Your task to perform on an android device: Go to location settings Image 0: 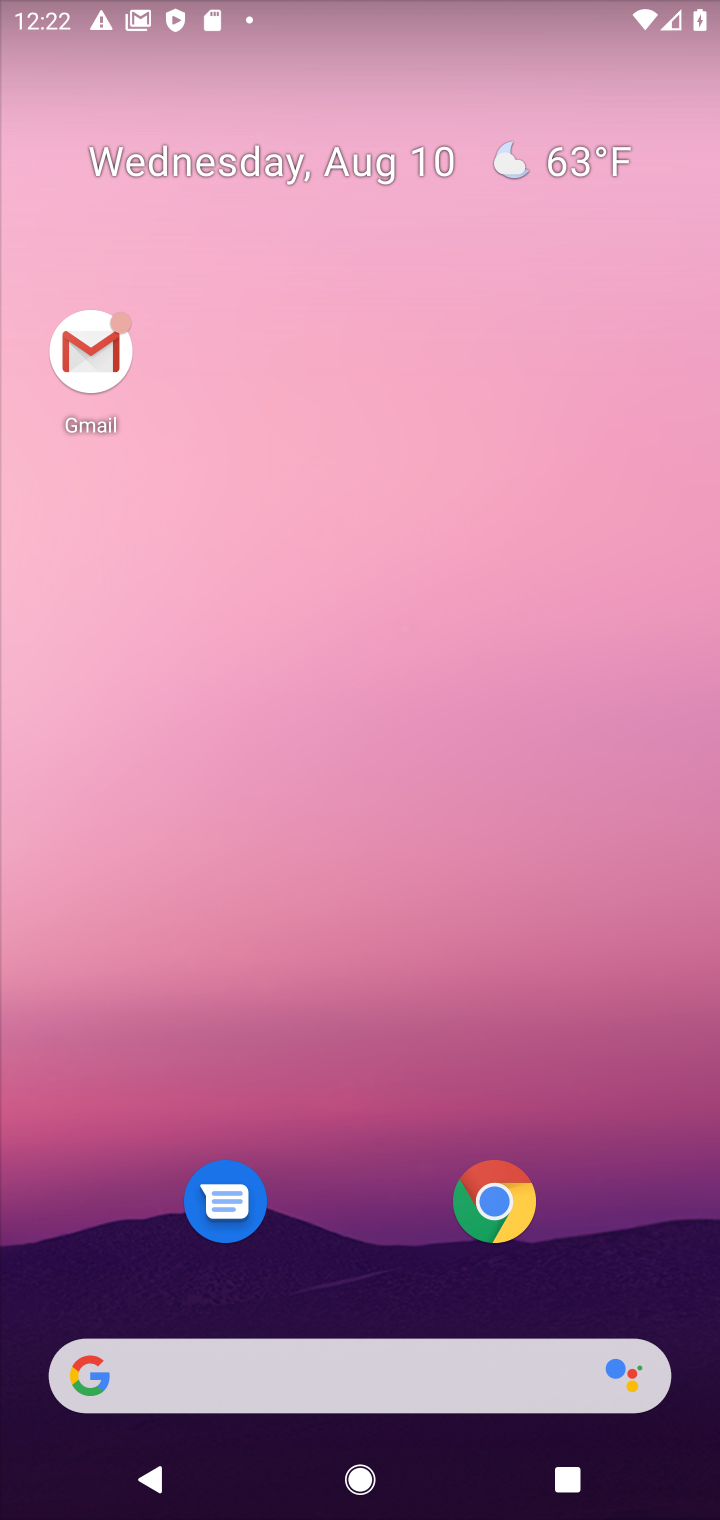
Step 0: click (93, 348)
Your task to perform on an android device: Go to location settings Image 1: 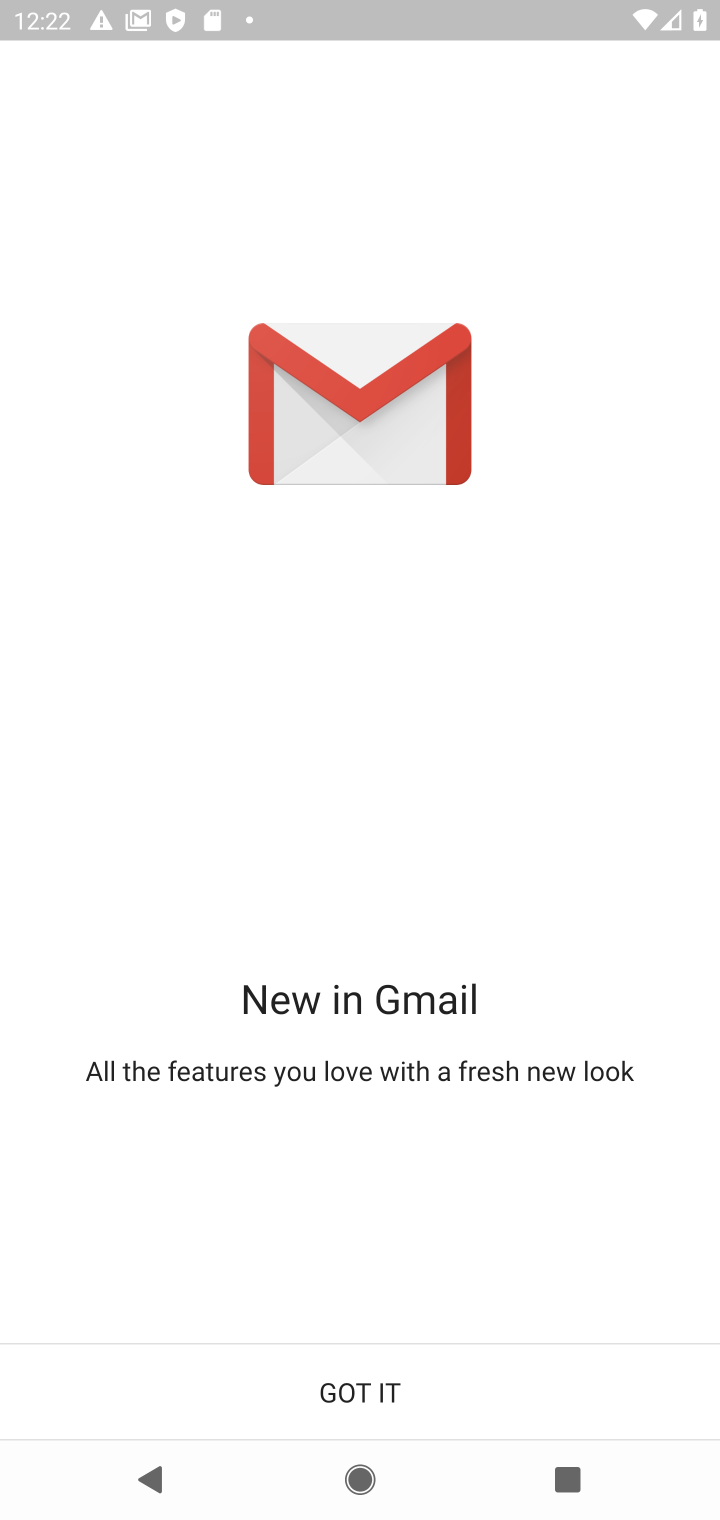
Step 1: press back button
Your task to perform on an android device: Go to location settings Image 2: 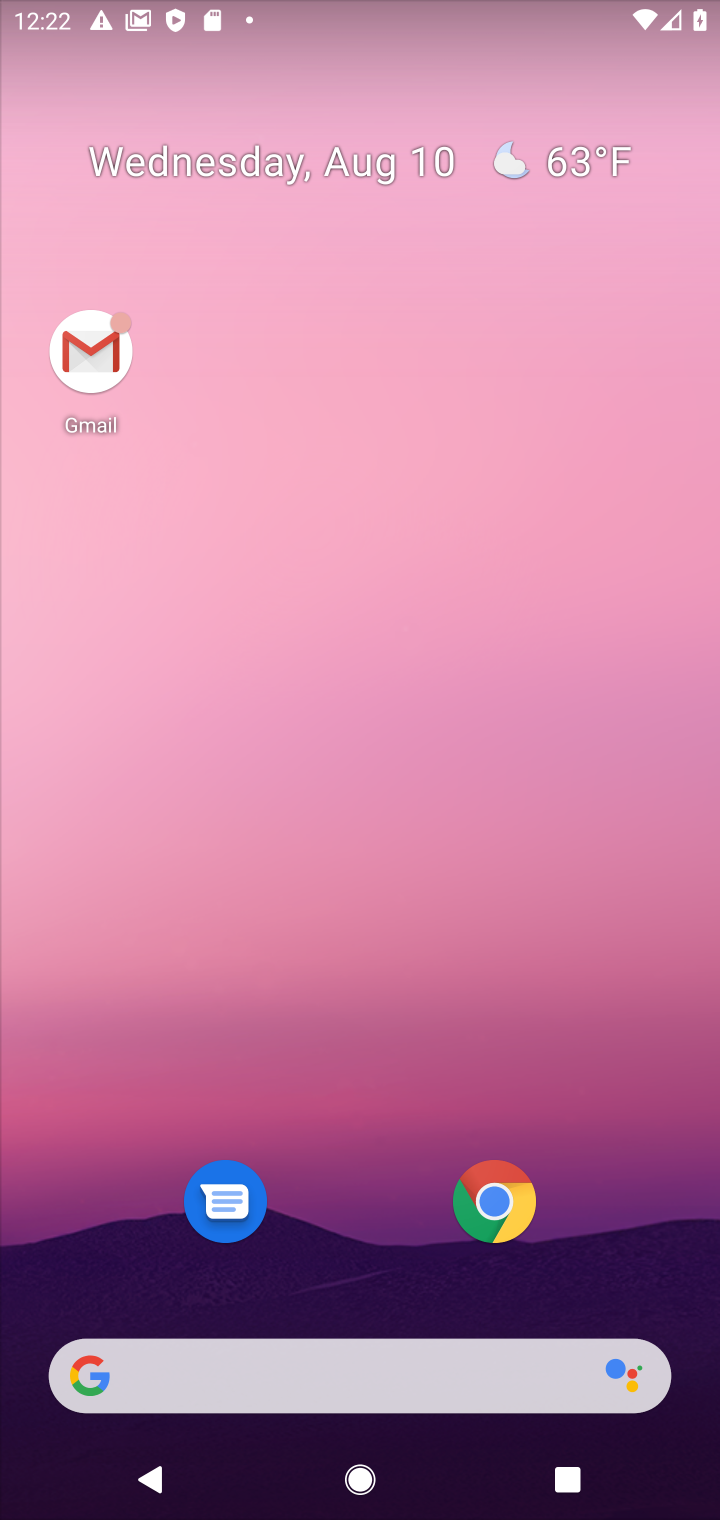
Step 2: drag from (404, 1178) to (362, 357)
Your task to perform on an android device: Go to location settings Image 3: 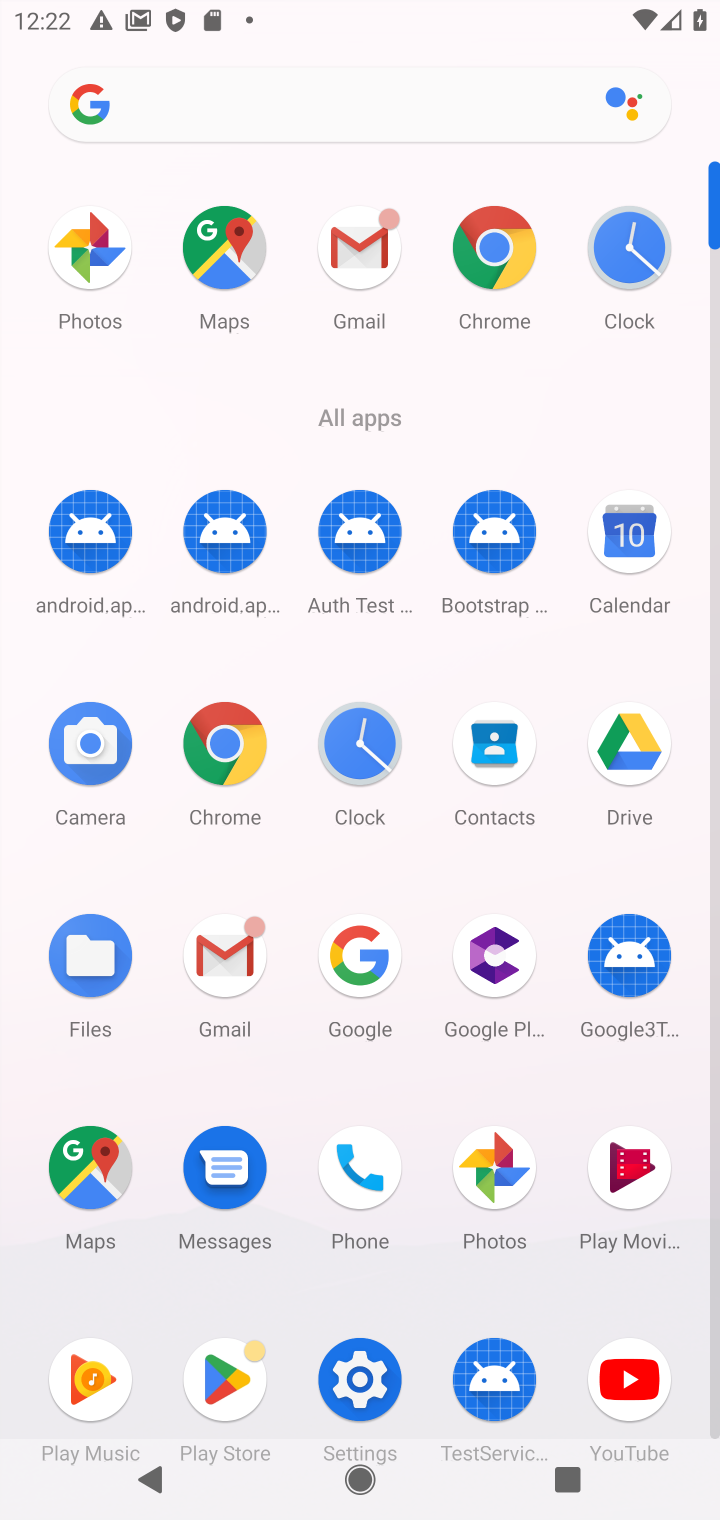
Step 3: click (330, 1367)
Your task to perform on an android device: Go to location settings Image 4: 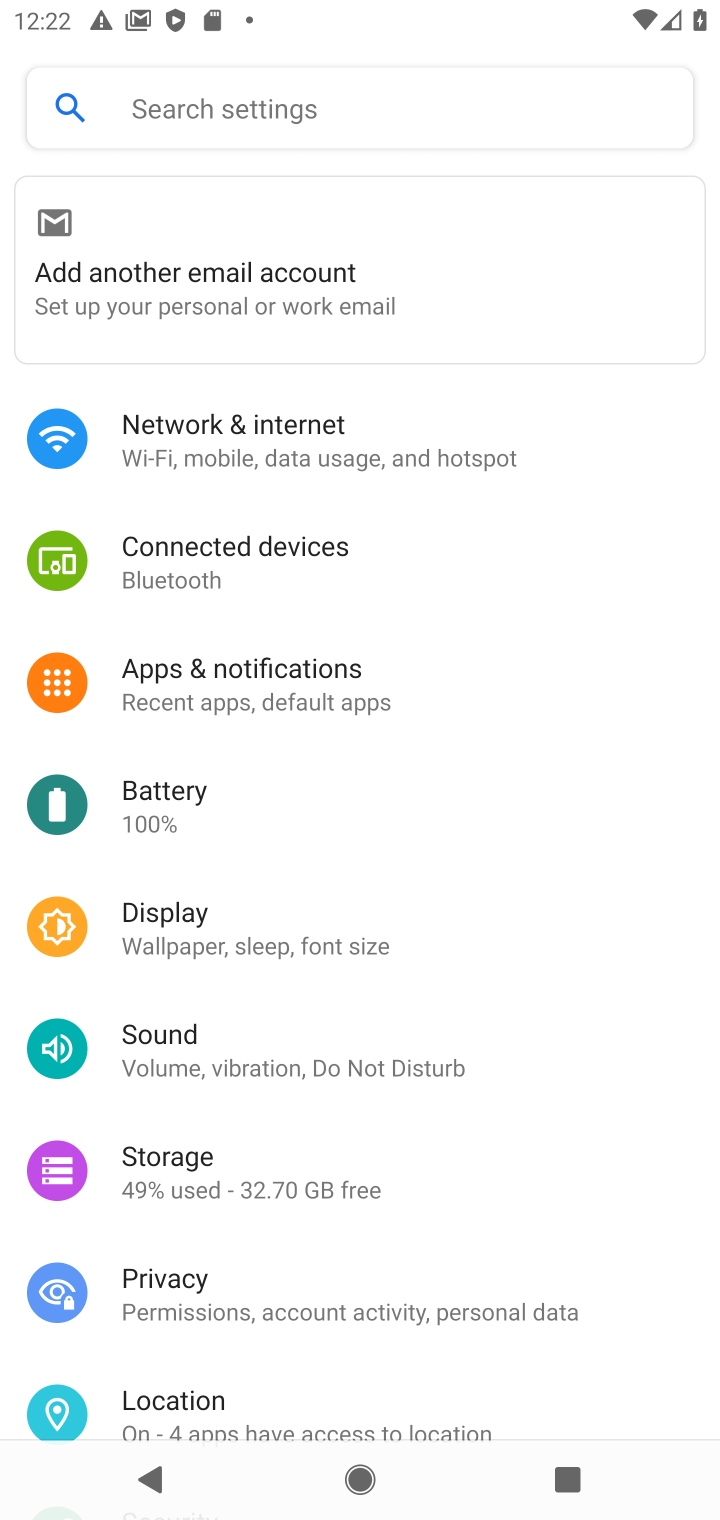
Step 4: click (261, 1396)
Your task to perform on an android device: Go to location settings Image 5: 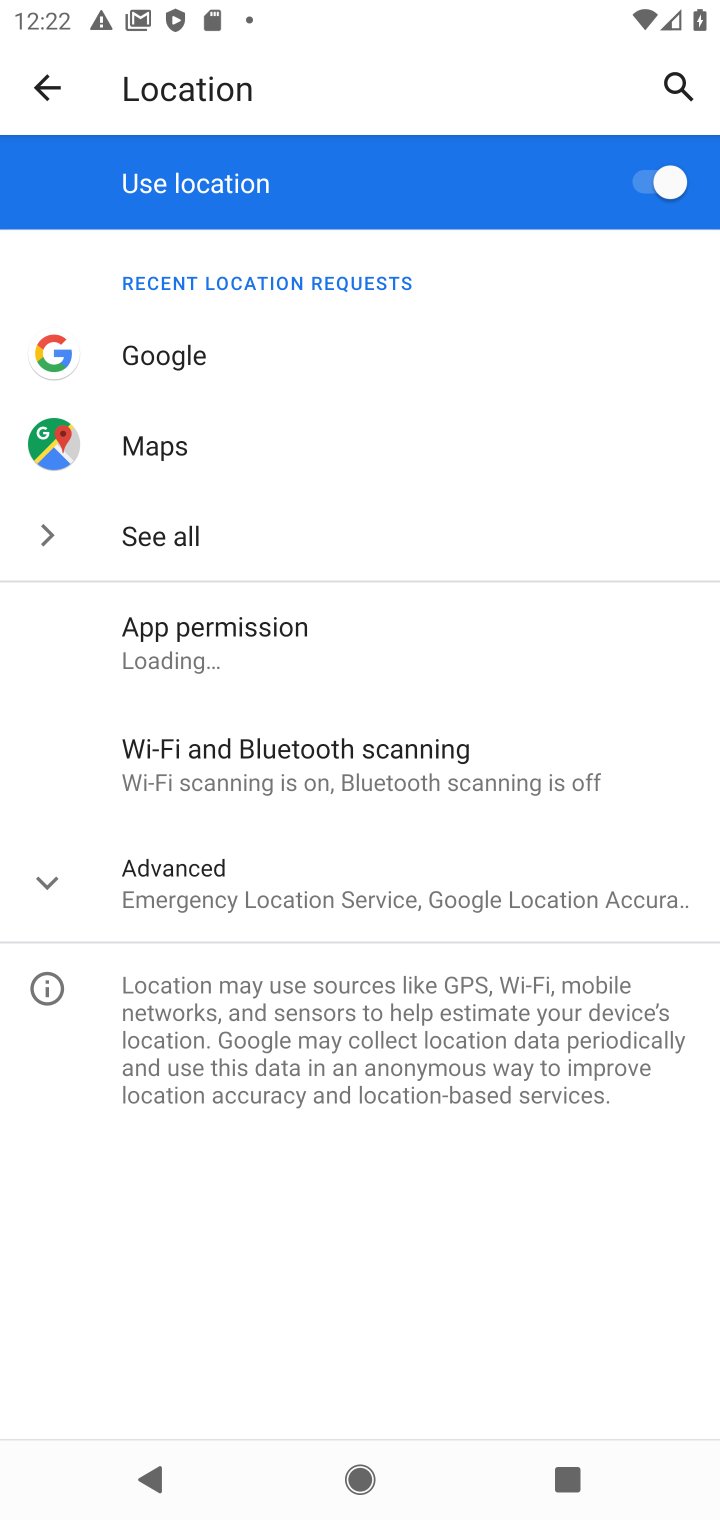
Step 5: task complete